Your task to perform on an android device: turn on translation in the chrome app Image 0: 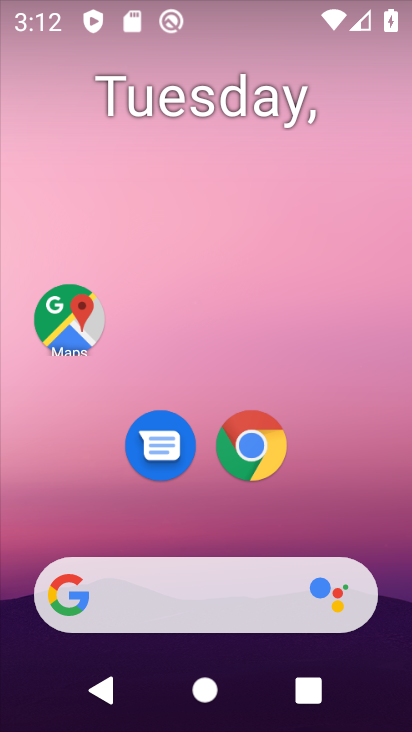
Step 0: click (262, 424)
Your task to perform on an android device: turn on translation in the chrome app Image 1: 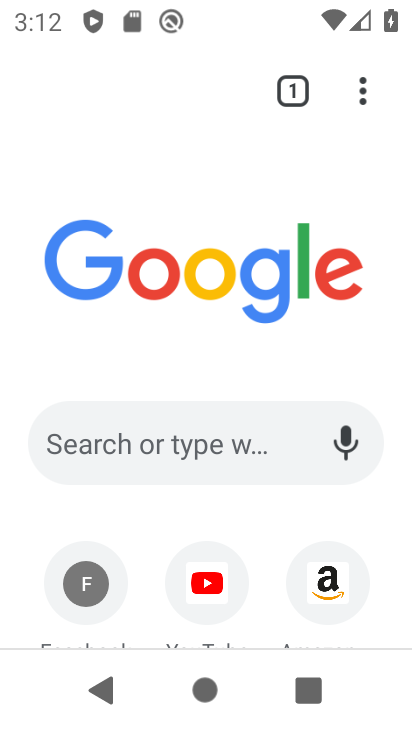
Step 1: drag from (363, 87) to (123, 464)
Your task to perform on an android device: turn on translation in the chrome app Image 2: 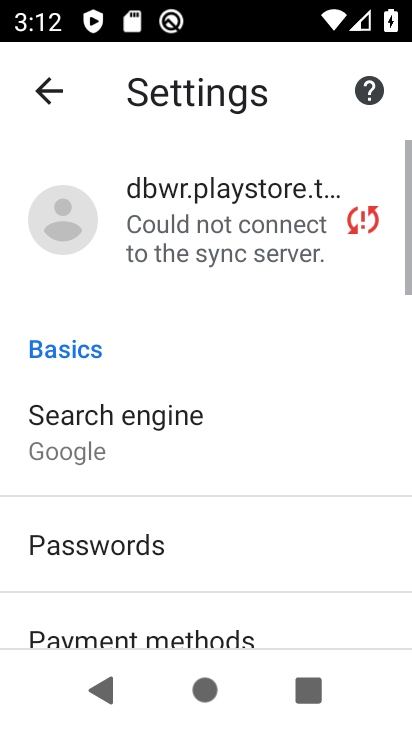
Step 2: drag from (121, 601) to (312, 70)
Your task to perform on an android device: turn on translation in the chrome app Image 3: 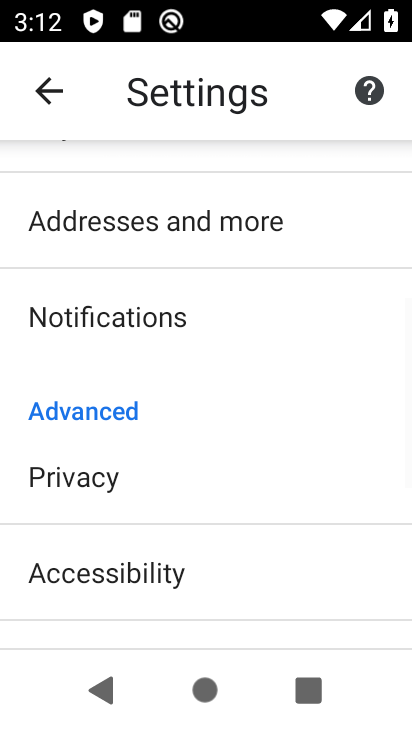
Step 3: drag from (156, 570) to (294, 178)
Your task to perform on an android device: turn on translation in the chrome app Image 4: 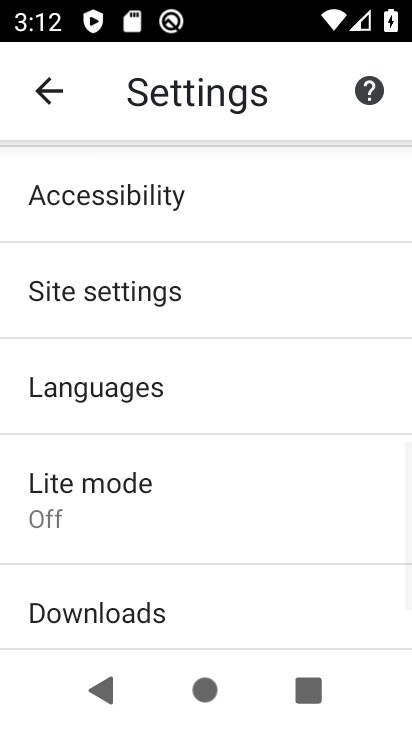
Step 4: click (62, 403)
Your task to perform on an android device: turn on translation in the chrome app Image 5: 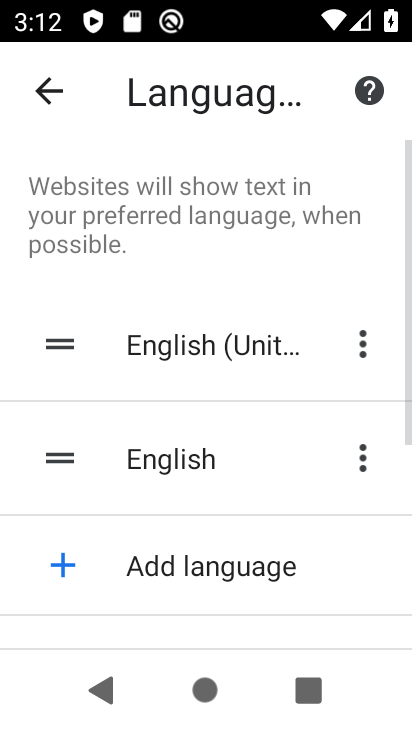
Step 5: drag from (186, 557) to (292, 100)
Your task to perform on an android device: turn on translation in the chrome app Image 6: 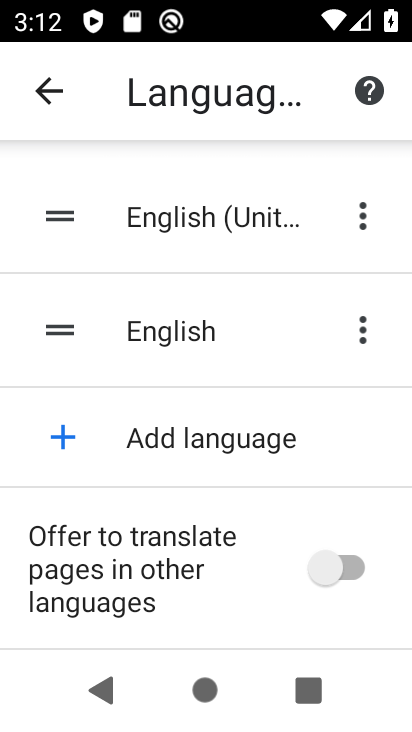
Step 6: click (328, 568)
Your task to perform on an android device: turn on translation in the chrome app Image 7: 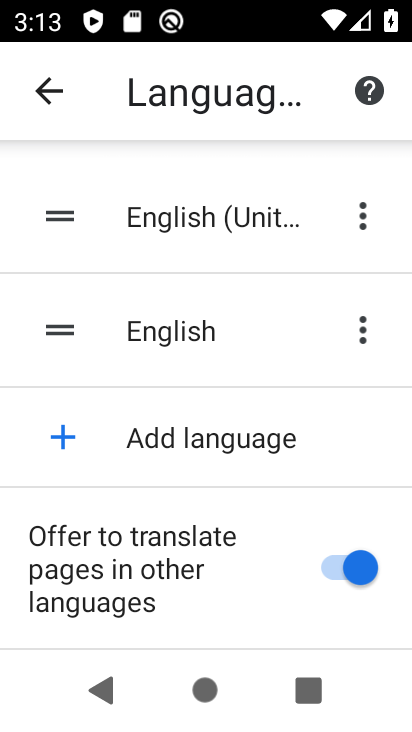
Step 7: task complete